Your task to perform on an android device: What's on my calendar tomorrow? Image 0: 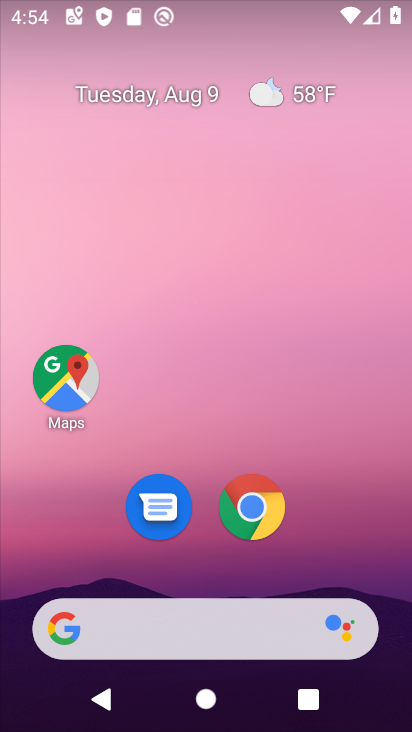
Step 0: drag from (212, 565) to (311, 23)
Your task to perform on an android device: What's on my calendar tomorrow? Image 1: 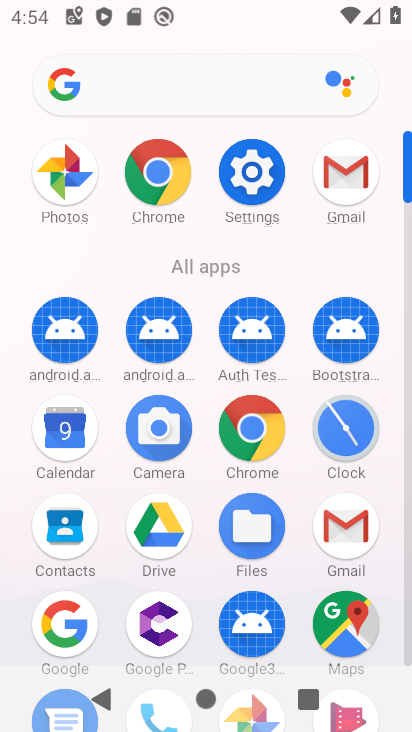
Step 1: click (74, 423)
Your task to perform on an android device: What's on my calendar tomorrow? Image 2: 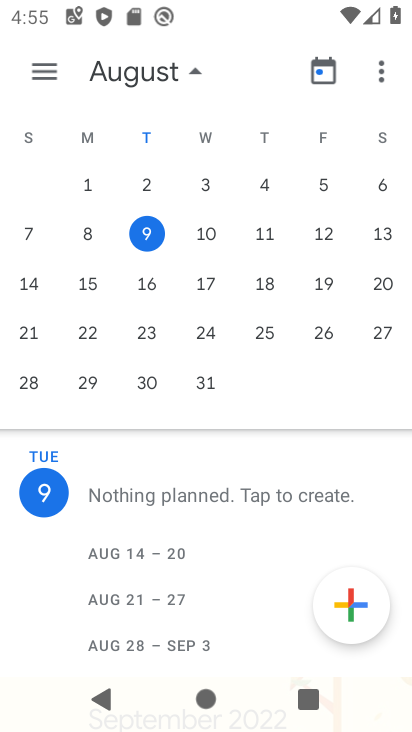
Step 2: click (205, 238)
Your task to perform on an android device: What's on my calendar tomorrow? Image 3: 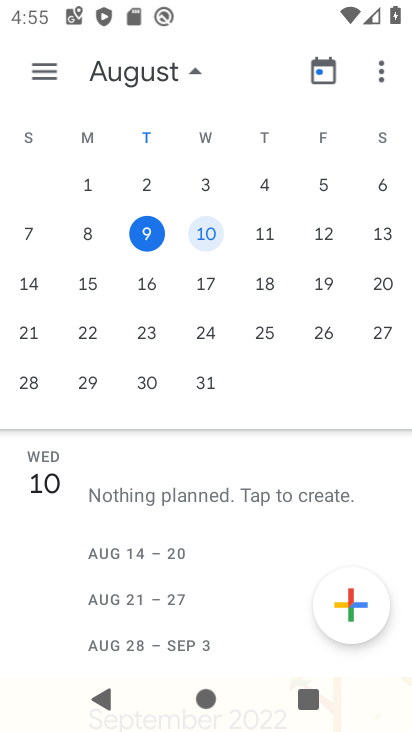
Step 3: task complete